Your task to perform on an android device: change the clock style Image 0: 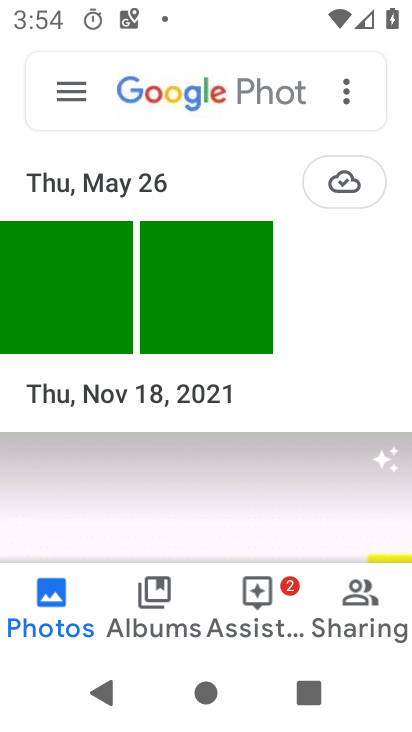
Step 0: press home button
Your task to perform on an android device: change the clock style Image 1: 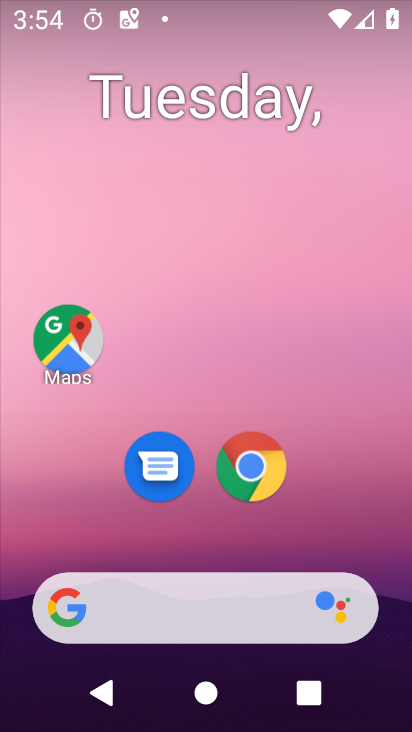
Step 1: drag from (362, 518) to (355, 122)
Your task to perform on an android device: change the clock style Image 2: 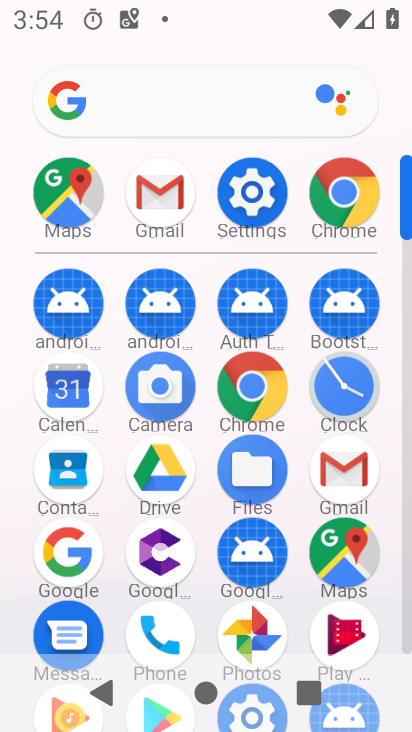
Step 2: click (355, 399)
Your task to perform on an android device: change the clock style Image 3: 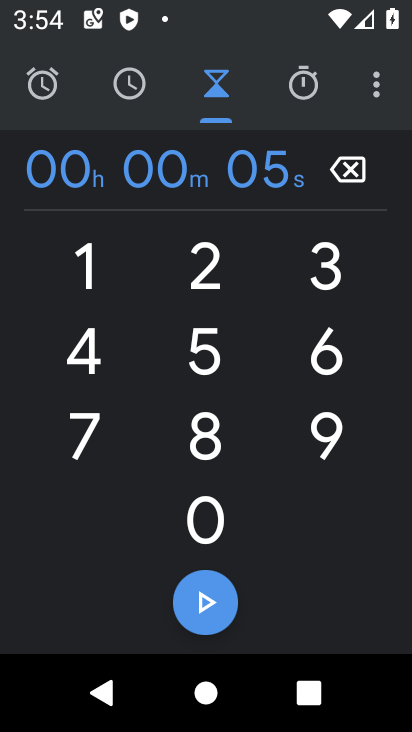
Step 3: click (380, 101)
Your task to perform on an android device: change the clock style Image 4: 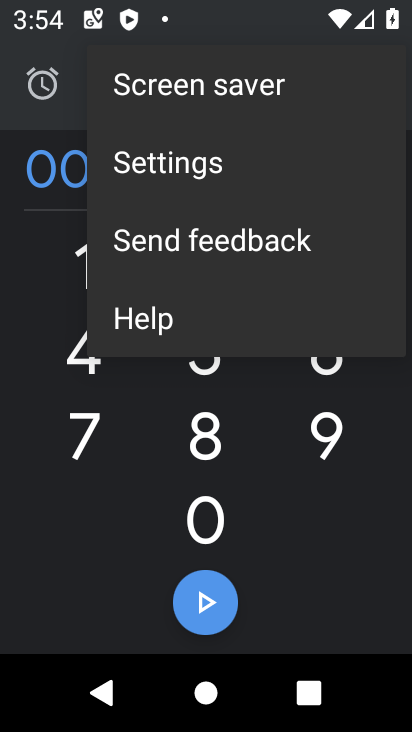
Step 4: click (271, 164)
Your task to perform on an android device: change the clock style Image 5: 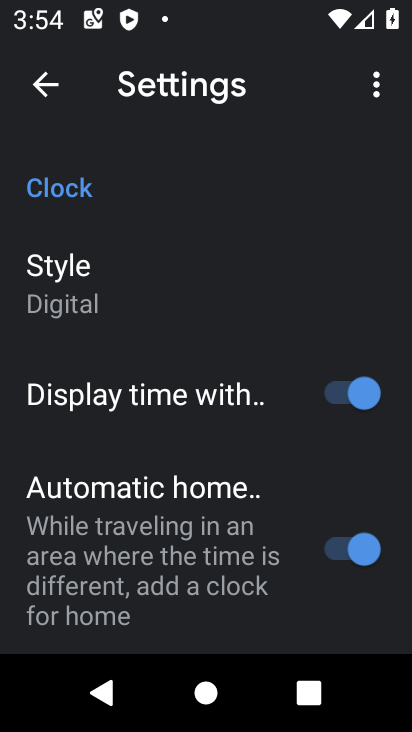
Step 5: click (79, 291)
Your task to perform on an android device: change the clock style Image 6: 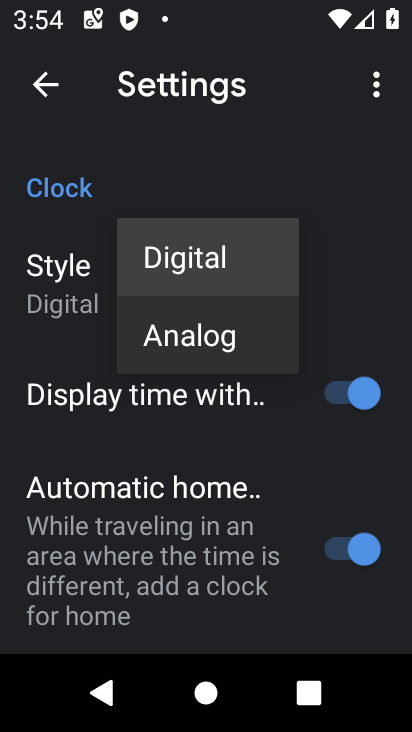
Step 6: click (202, 344)
Your task to perform on an android device: change the clock style Image 7: 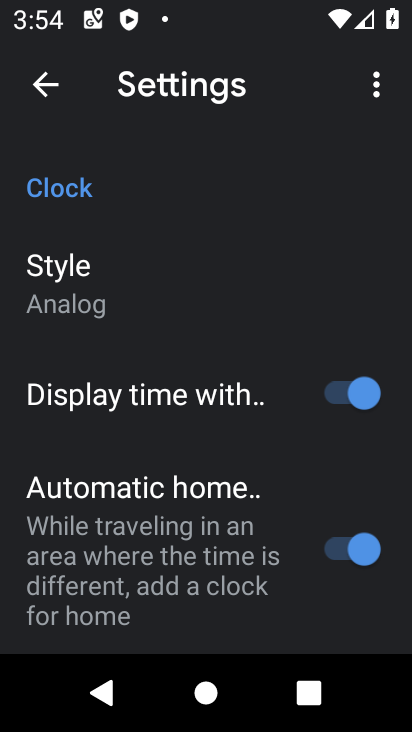
Step 7: task complete